Your task to perform on an android device: change the clock display to show seconds Image 0: 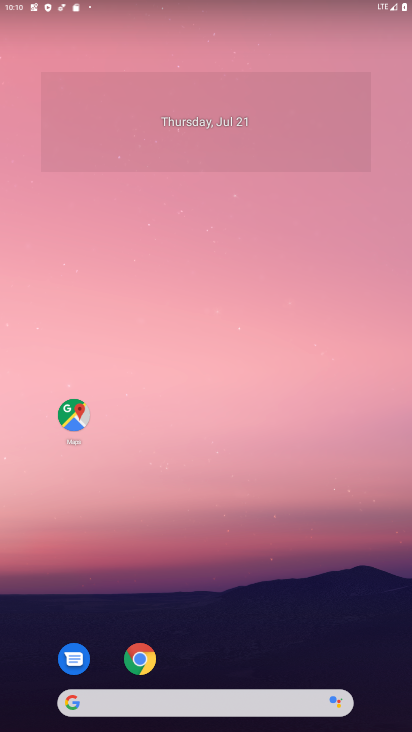
Step 0: press home button
Your task to perform on an android device: change the clock display to show seconds Image 1: 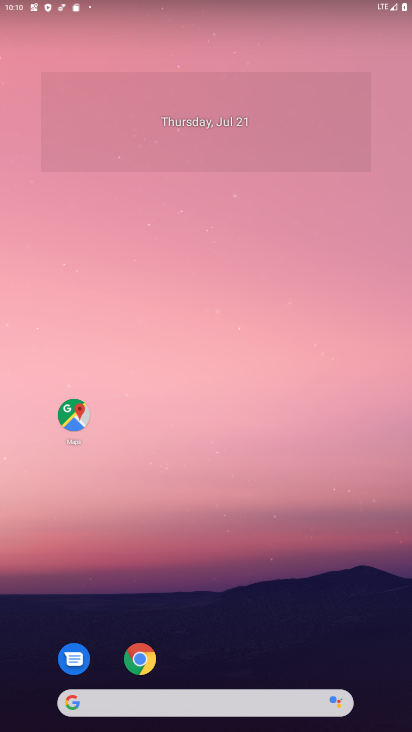
Step 1: drag from (324, 559) to (251, 0)
Your task to perform on an android device: change the clock display to show seconds Image 2: 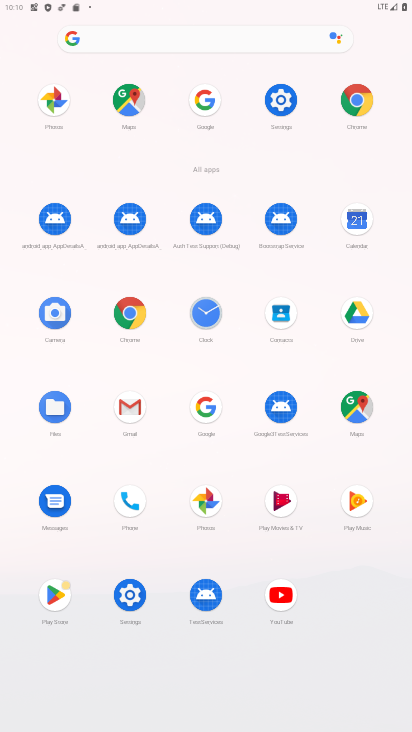
Step 2: click (212, 314)
Your task to perform on an android device: change the clock display to show seconds Image 3: 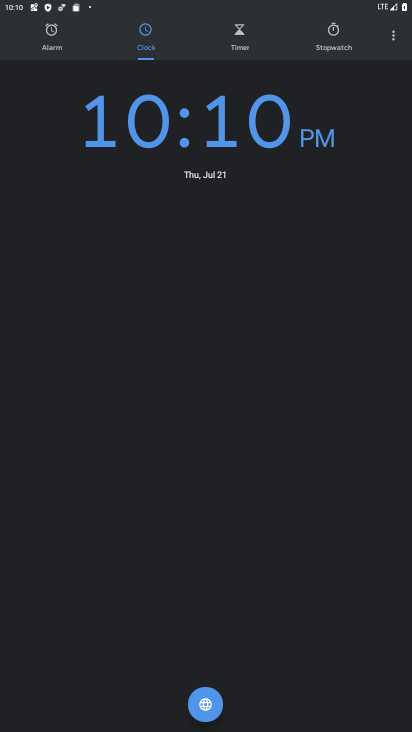
Step 3: click (390, 38)
Your task to perform on an android device: change the clock display to show seconds Image 4: 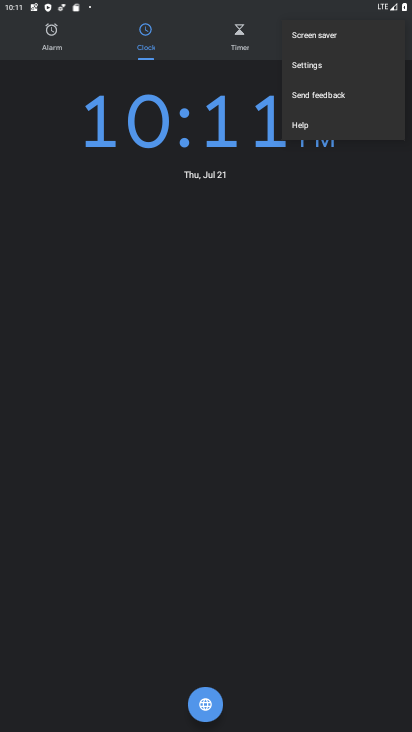
Step 4: click (321, 73)
Your task to perform on an android device: change the clock display to show seconds Image 5: 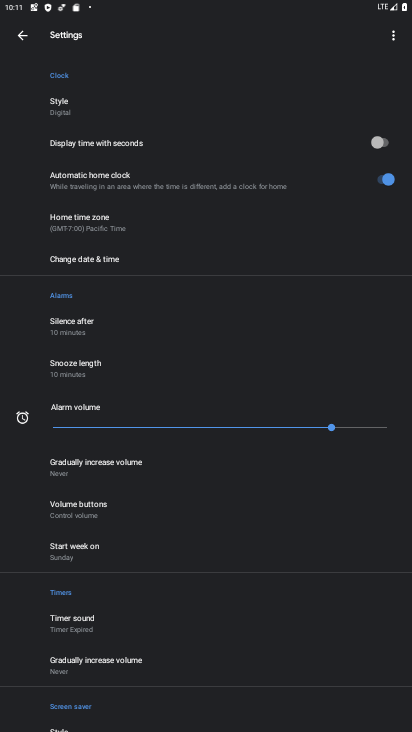
Step 5: click (384, 151)
Your task to perform on an android device: change the clock display to show seconds Image 6: 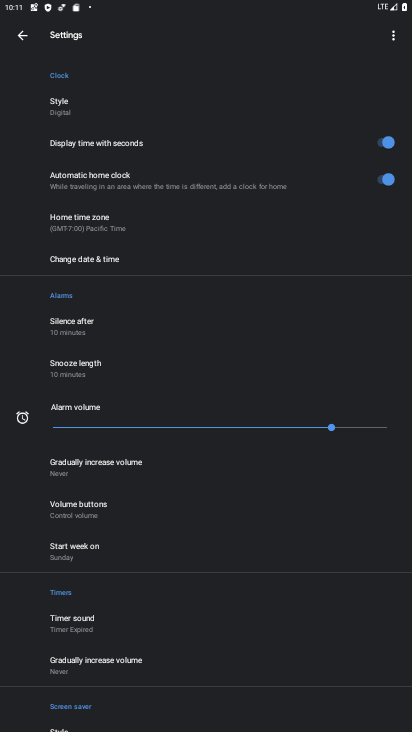
Step 6: task complete